Your task to perform on an android device: change the upload size in google photos Image 0: 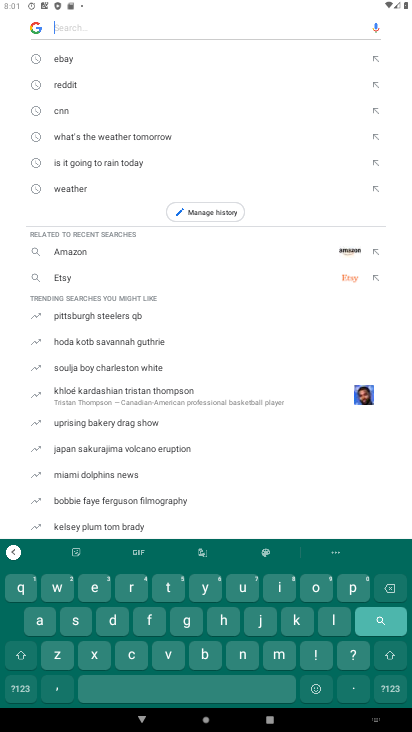
Step 0: press home button
Your task to perform on an android device: change the upload size in google photos Image 1: 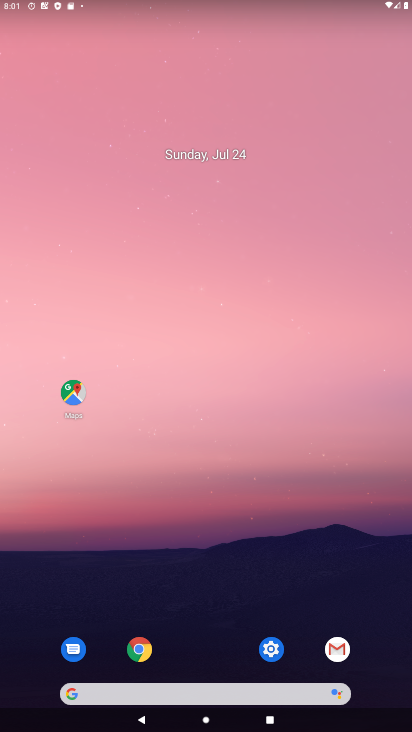
Step 1: drag from (241, 712) to (212, 168)
Your task to perform on an android device: change the upload size in google photos Image 2: 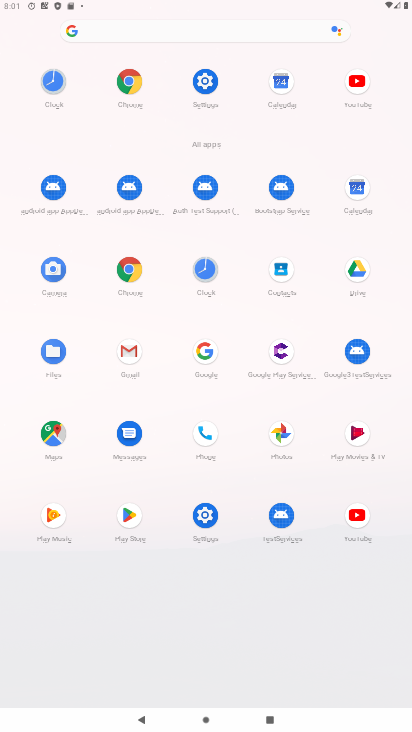
Step 2: click (285, 437)
Your task to perform on an android device: change the upload size in google photos Image 3: 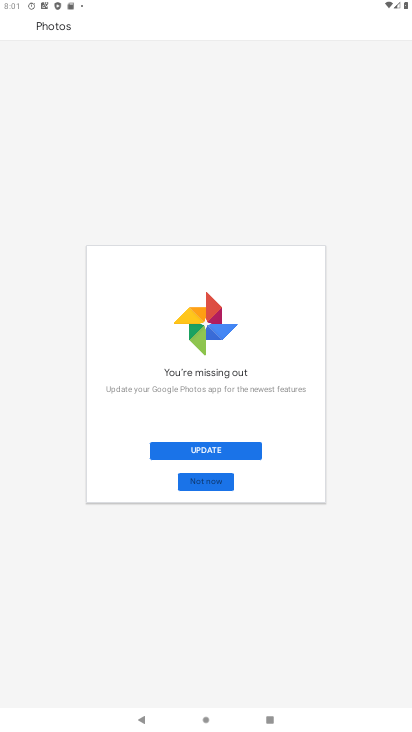
Step 3: click (214, 446)
Your task to perform on an android device: change the upload size in google photos Image 4: 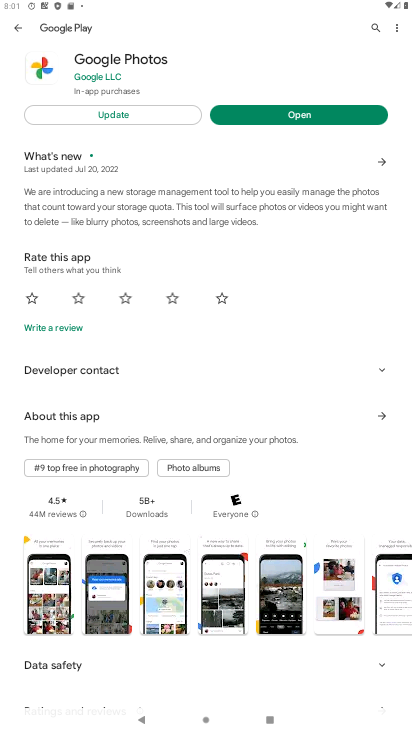
Step 4: click (153, 117)
Your task to perform on an android device: change the upload size in google photos Image 5: 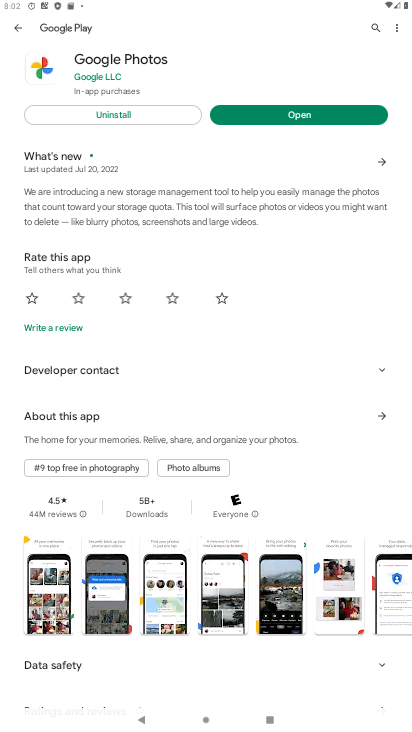
Step 5: click (278, 111)
Your task to perform on an android device: change the upload size in google photos Image 6: 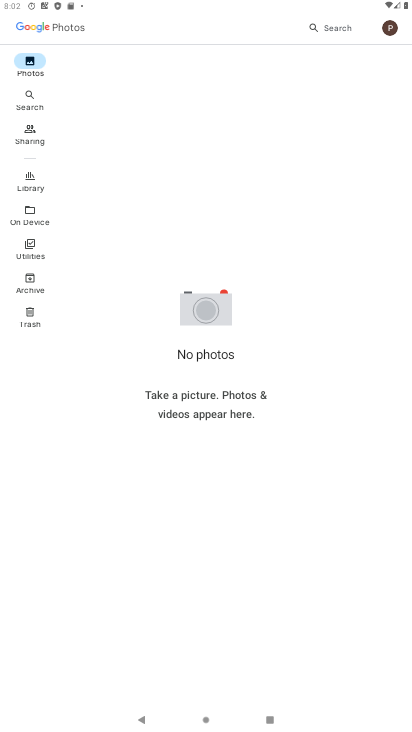
Step 6: click (390, 40)
Your task to perform on an android device: change the upload size in google photos Image 7: 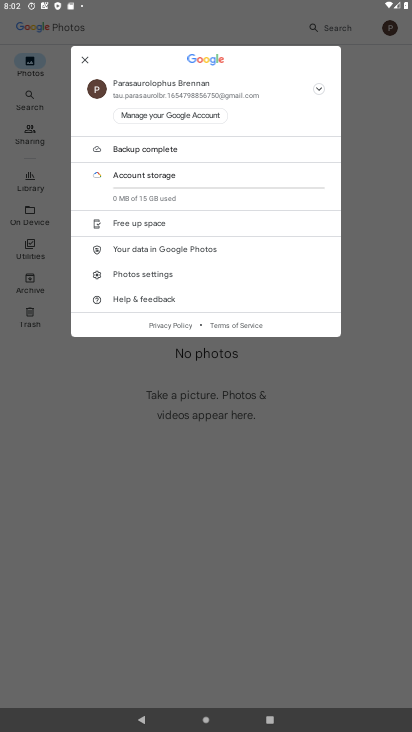
Step 7: click (133, 271)
Your task to perform on an android device: change the upload size in google photos Image 8: 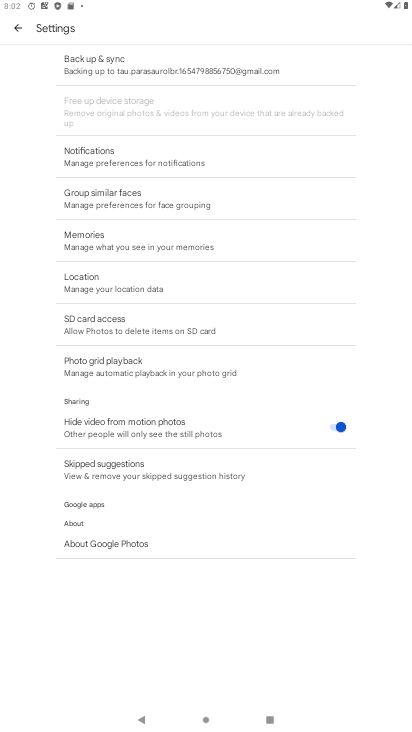
Step 8: click (127, 66)
Your task to perform on an android device: change the upload size in google photos Image 9: 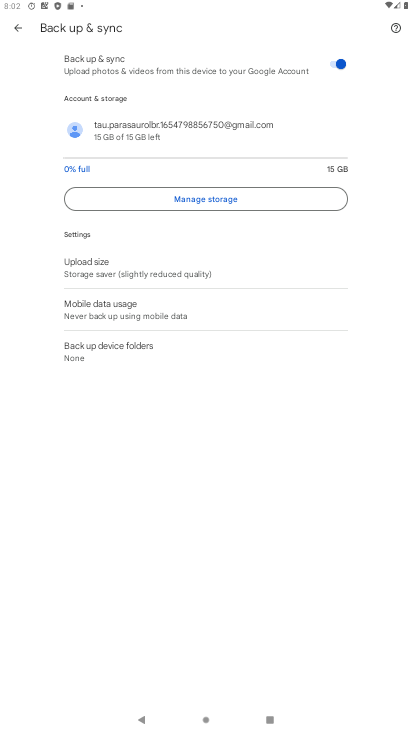
Step 9: click (140, 270)
Your task to perform on an android device: change the upload size in google photos Image 10: 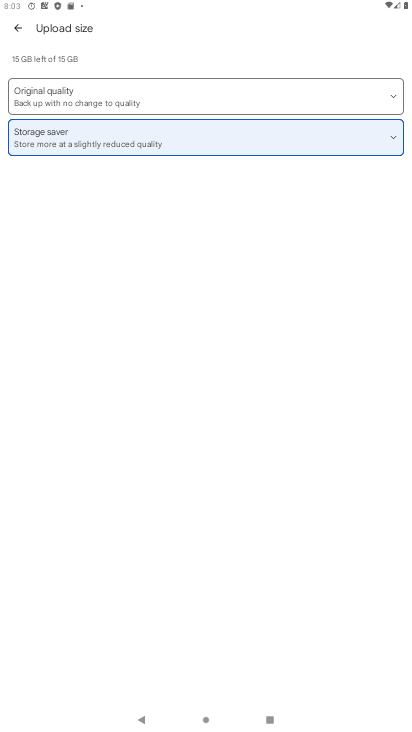
Step 10: task complete